Your task to perform on an android device: Open the phone app and click the voicemail tab. Image 0: 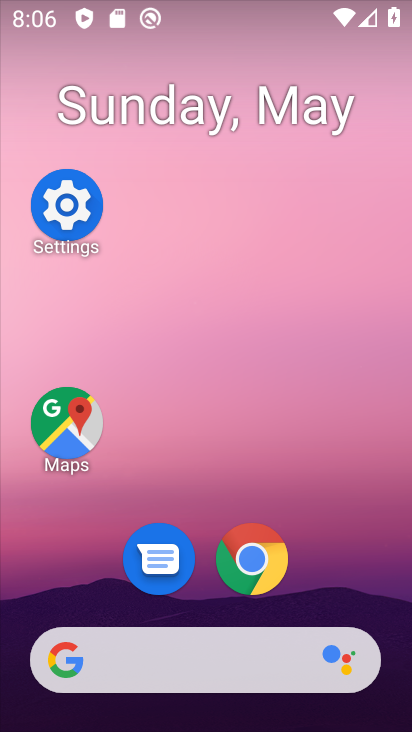
Step 0: drag from (363, 583) to (250, 177)
Your task to perform on an android device: Open the phone app and click the voicemail tab. Image 1: 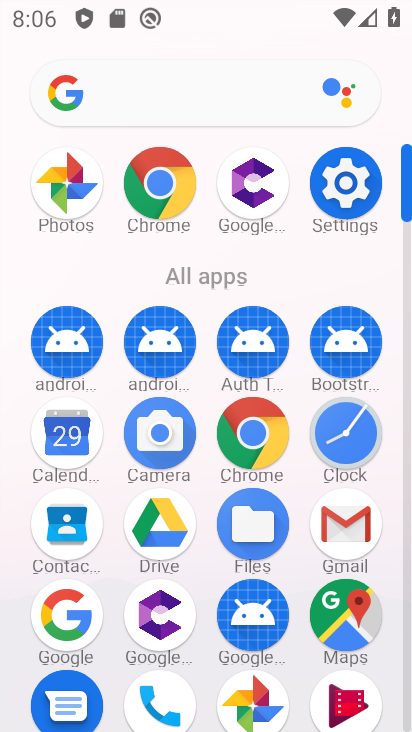
Step 1: drag from (231, 572) to (226, 174)
Your task to perform on an android device: Open the phone app and click the voicemail tab. Image 2: 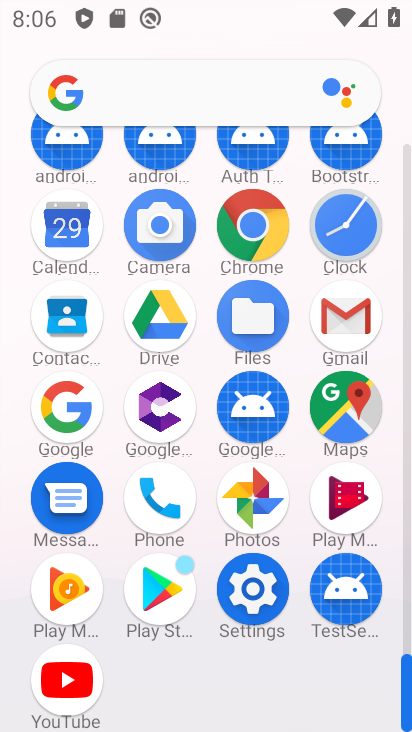
Step 2: click (168, 525)
Your task to perform on an android device: Open the phone app and click the voicemail tab. Image 3: 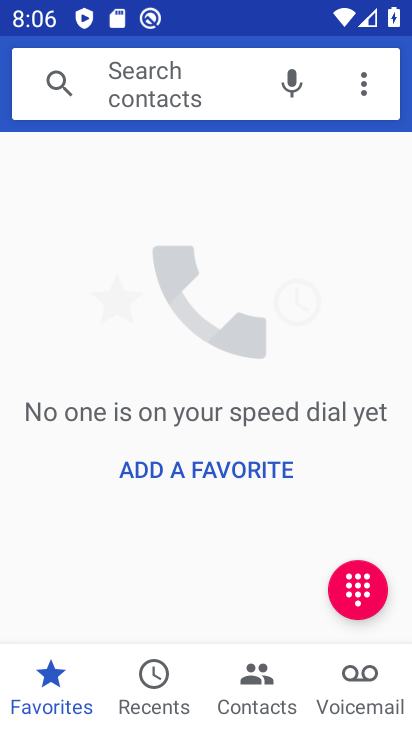
Step 3: click (373, 694)
Your task to perform on an android device: Open the phone app and click the voicemail tab. Image 4: 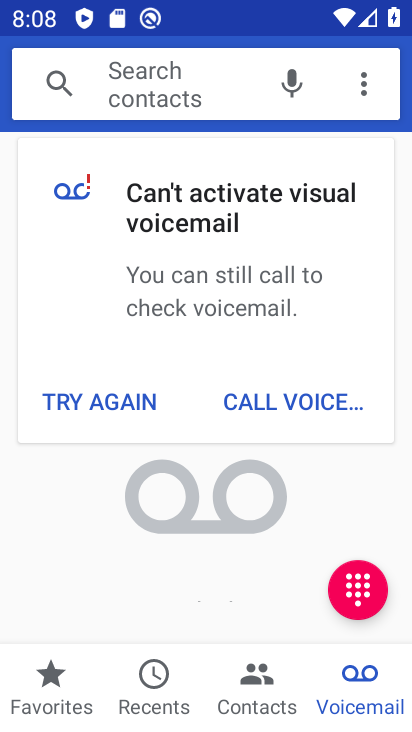
Step 4: task complete